Your task to perform on an android device: open chrome and create a bookmark for the current page Image 0: 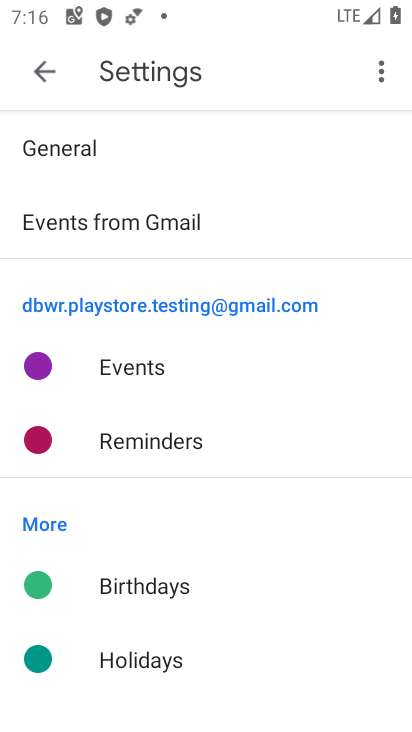
Step 0: press home button
Your task to perform on an android device: open chrome and create a bookmark for the current page Image 1: 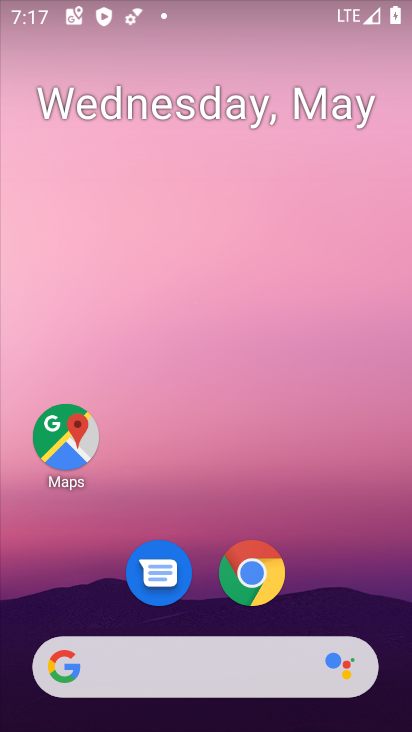
Step 1: click (254, 586)
Your task to perform on an android device: open chrome and create a bookmark for the current page Image 2: 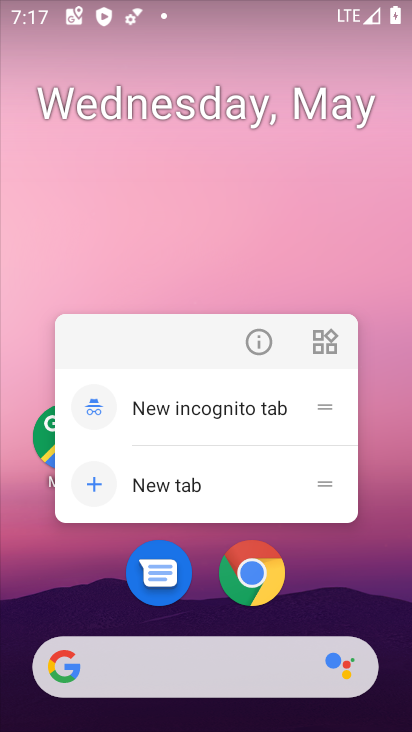
Step 2: click (250, 563)
Your task to perform on an android device: open chrome and create a bookmark for the current page Image 3: 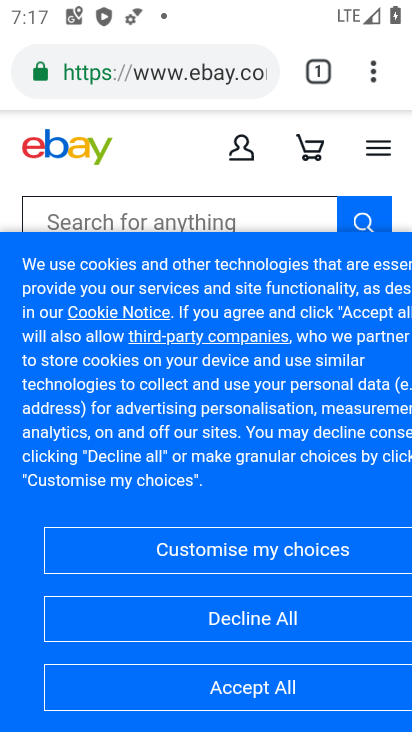
Step 3: click (373, 72)
Your task to perform on an android device: open chrome and create a bookmark for the current page Image 4: 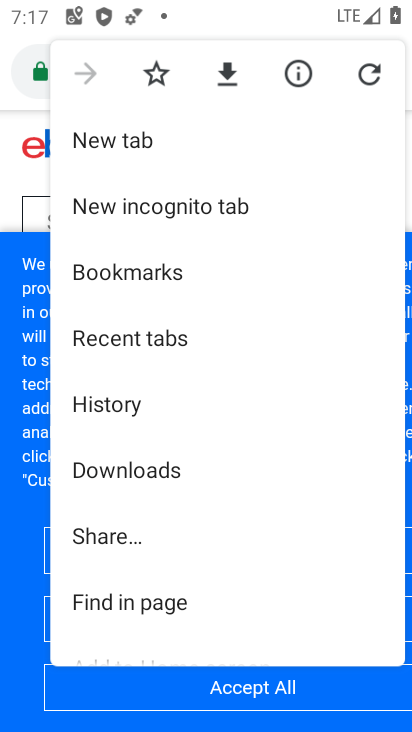
Step 4: click (161, 74)
Your task to perform on an android device: open chrome and create a bookmark for the current page Image 5: 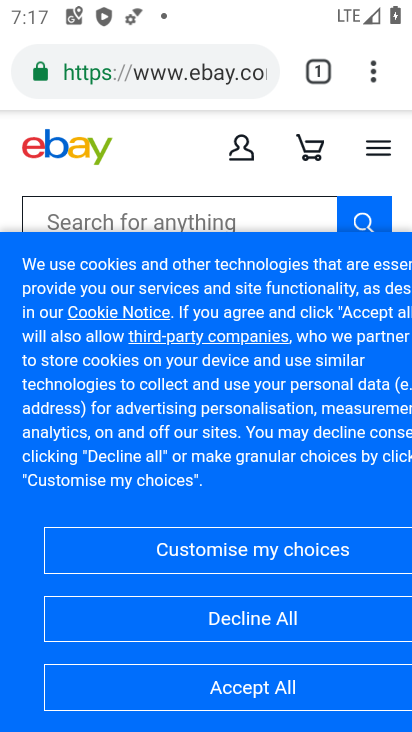
Step 5: task complete